Your task to perform on an android device: Show me popular videos on Youtube Image 0: 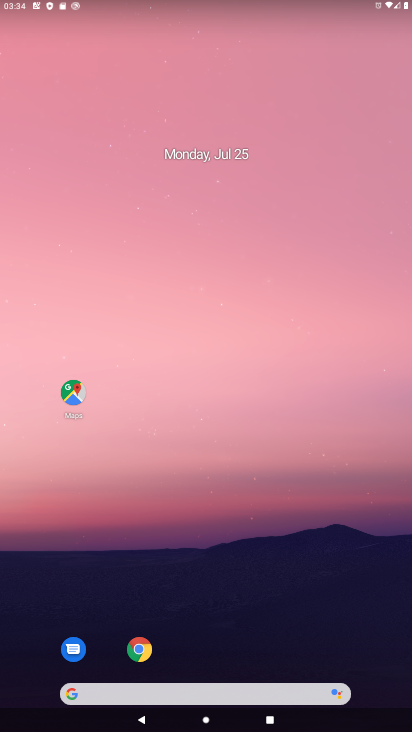
Step 0: drag from (387, 666) to (329, 111)
Your task to perform on an android device: Show me popular videos on Youtube Image 1: 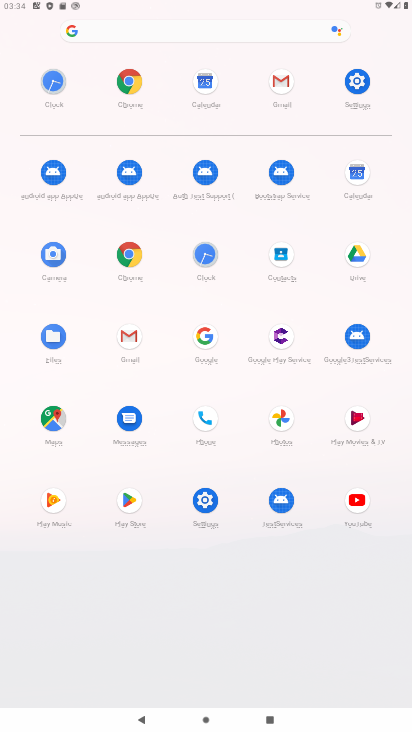
Step 1: click (359, 501)
Your task to perform on an android device: Show me popular videos on Youtube Image 2: 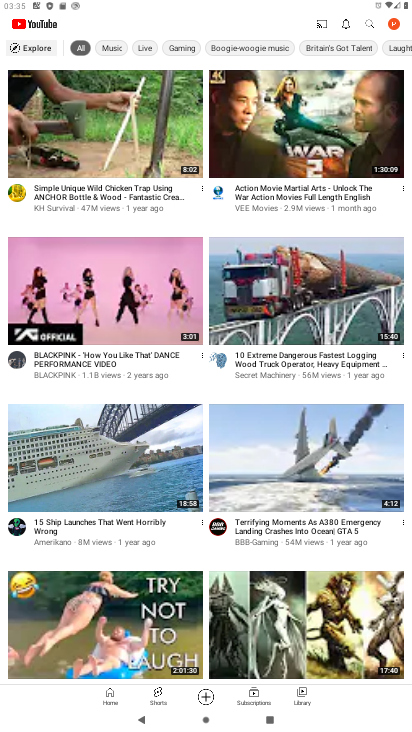
Step 2: click (159, 692)
Your task to perform on an android device: Show me popular videos on Youtube Image 3: 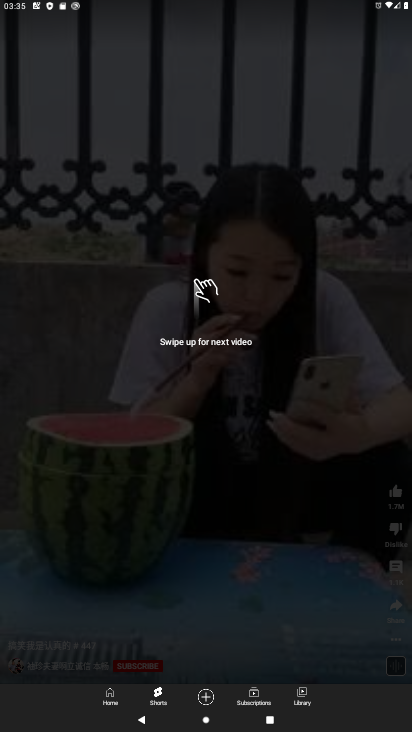
Step 3: click (114, 692)
Your task to perform on an android device: Show me popular videos on Youtube Image 4: 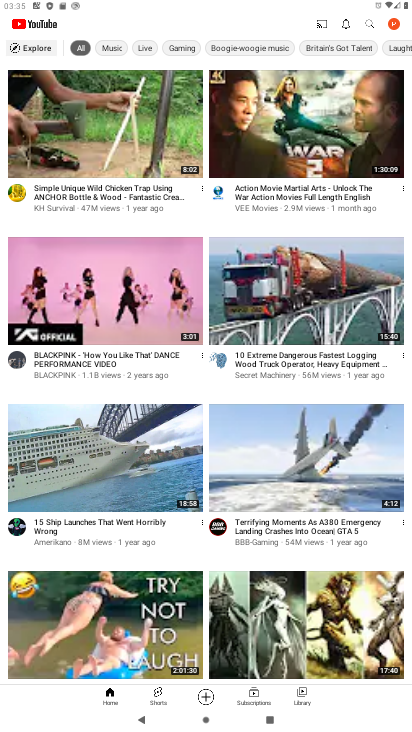
Step 4: click (31, 48)
Your task to perform on an android device: Show me popular videos on Youtube Image 5: 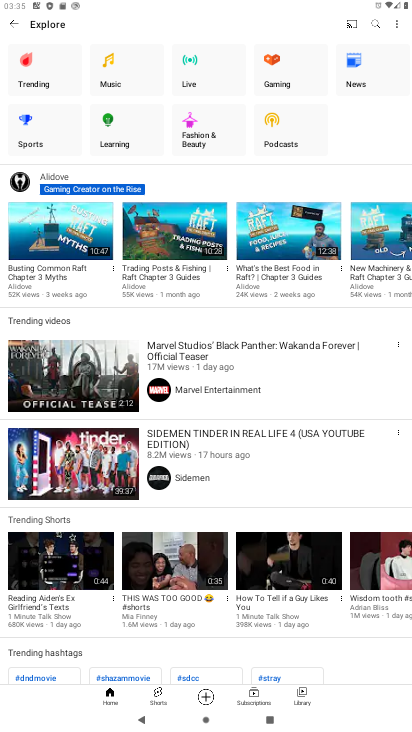
Step 5: click (35, 69)
Your task to perform on an android device: Show me popular videos on Youtube Image 6: 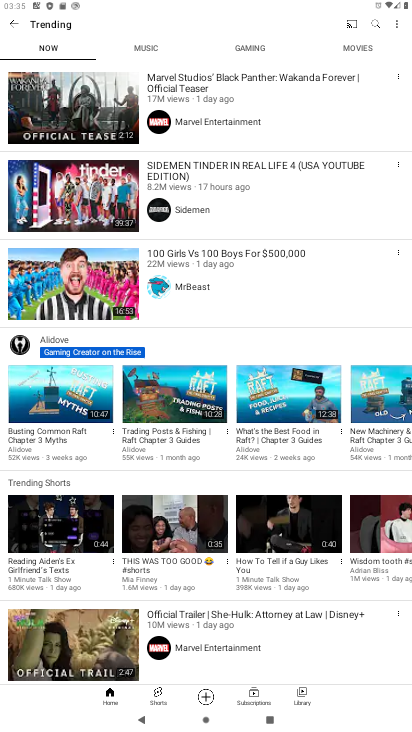
Step 6: task complete